Your task to perform on an android device: Open ESPN.com Image 0: 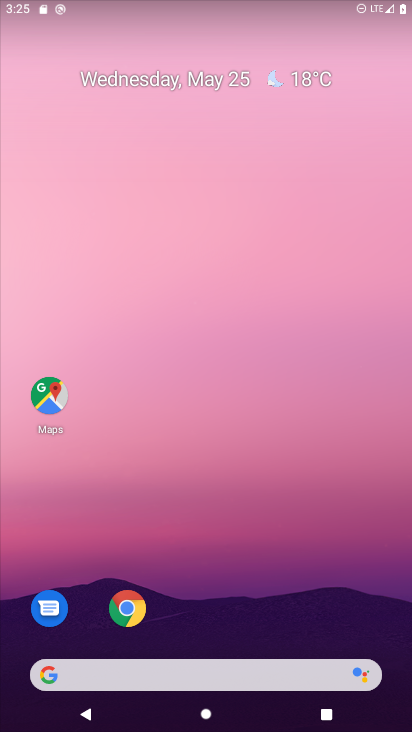
Step 0: click (123, 609)
Your task to perform on an android device: Open ESPN.com Image 1: 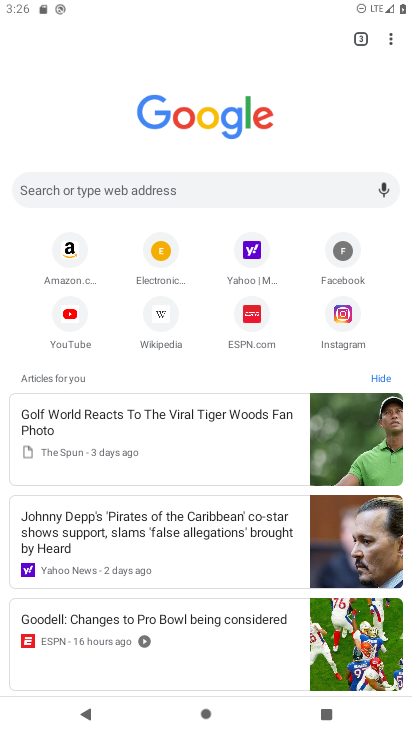
Step 1: click (113, 183)
Your task to perform on an android device: Open ESPN.com Image 2: 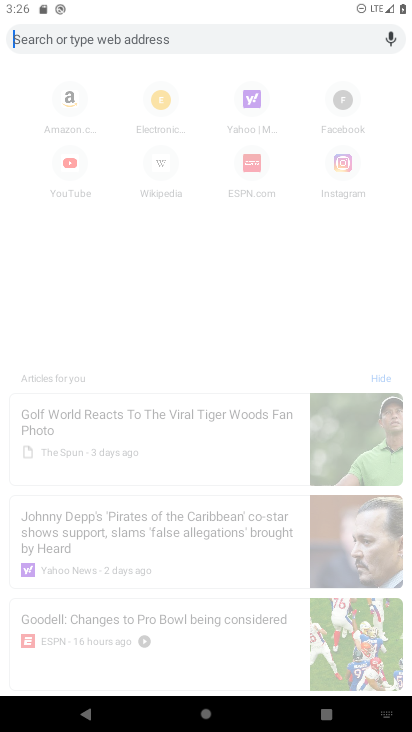
Step 2: type "espn.com"
Your task to perform on an android device: Open ESPN.com Image 3: 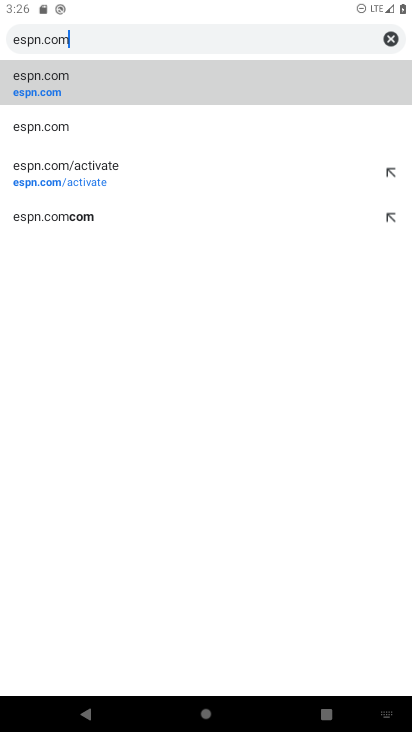
Step 3: click (71, 79)
Your task to perform on an android device: Open ESPN.com Image 4: 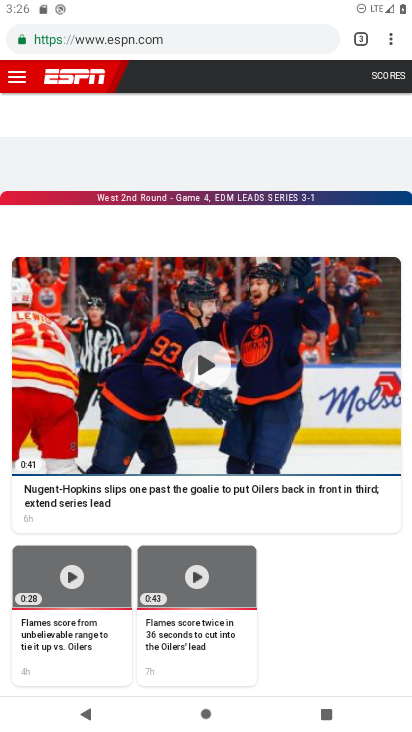
Step 4: task complete